Your task to perform on an android device: Show me productivity apps on the Play Store Image 0: 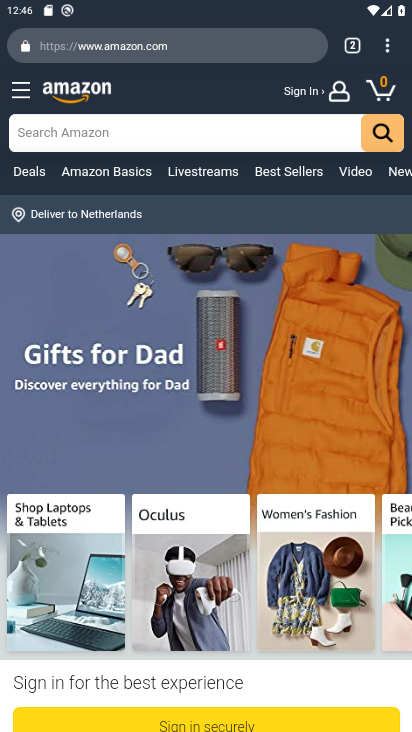
Step 0: press home button
Your task to perform on an android device: Show me productivity apps on the Play Store Image 1: 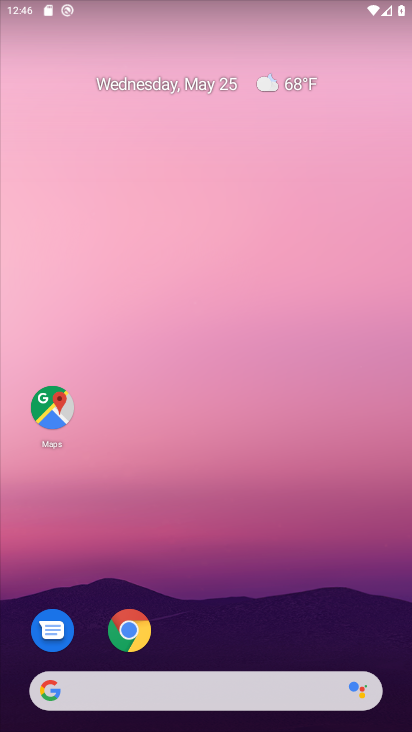
Step 1: drag from (219, 613) to (256, 135)
Your task to perform on an android device: Show me productivity apps on the Play Store Image 2: 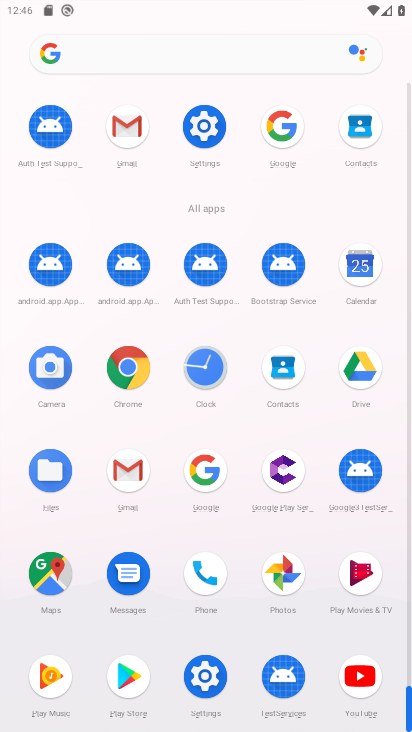
Step 2: click (129, 666)
Your task to perform on an android device: Show me productivity apps on the Play Store Image 3: 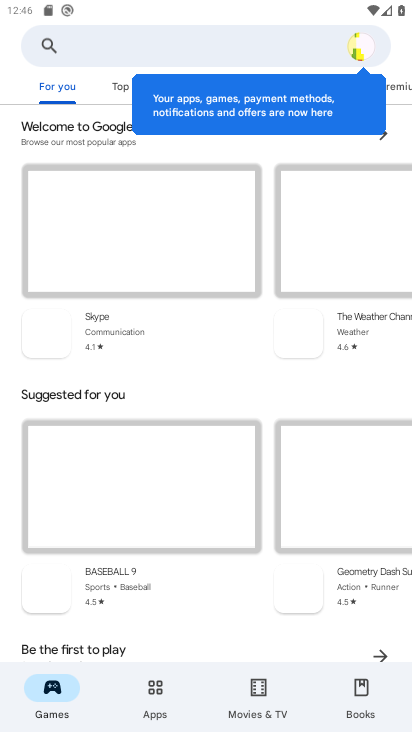
Step 3: click (149, 692)
Your task to perform on an android device: Show me productivity apps on the Play Store Image 4: 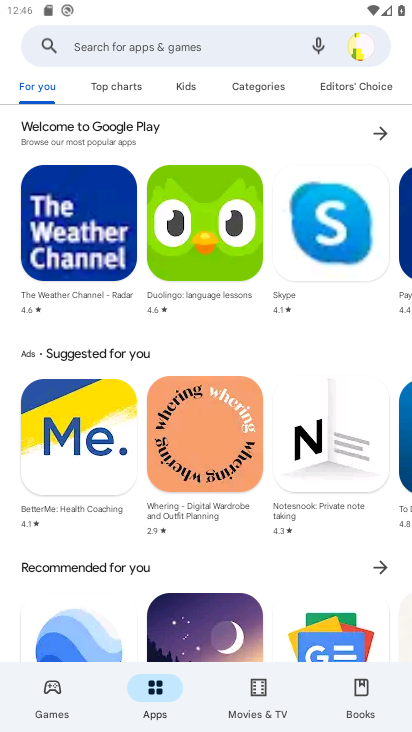
Step 4: click (267, 87)
Your task to perform on an android device: Show me productivity apps on the Play Store Image 5: 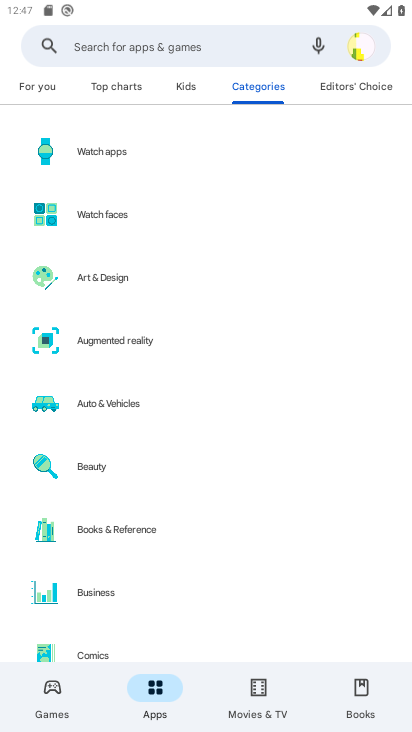
Step 5: drag from (208, 601) to (223, 170)
Your task to perform on an android device: Show me productivity apps on the Play Store Image 6: 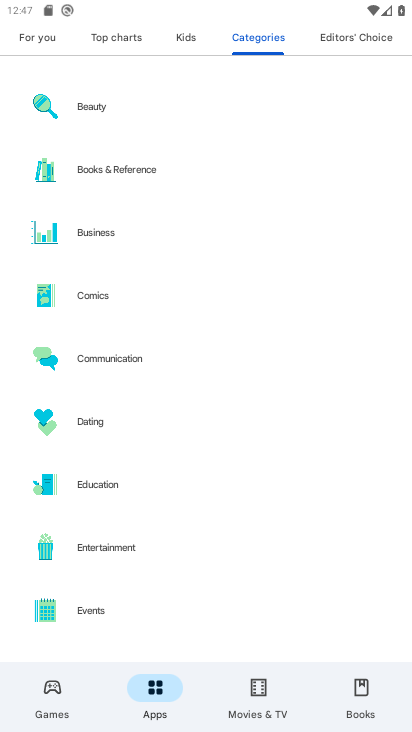
Step 6: drag from (175, 559) to (200, 114)
Your task to perform on an android device: Show me productivity apps on the Play Store Image 7: 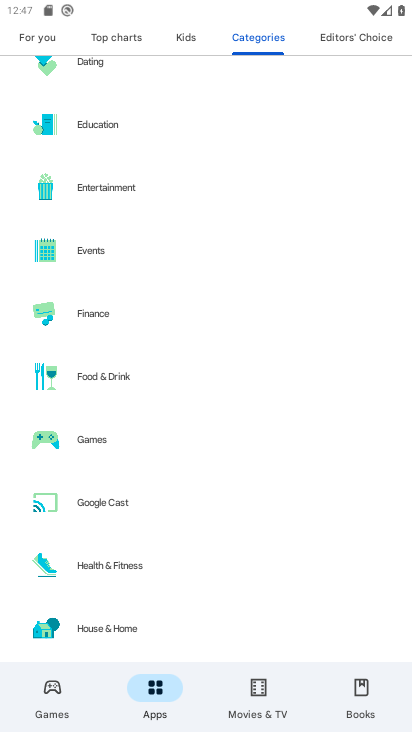
Step 7: drag from (197, 536) to (217, 238)
Your task to perform on an android device: Show me productivity apps on the Play Store Image 8: 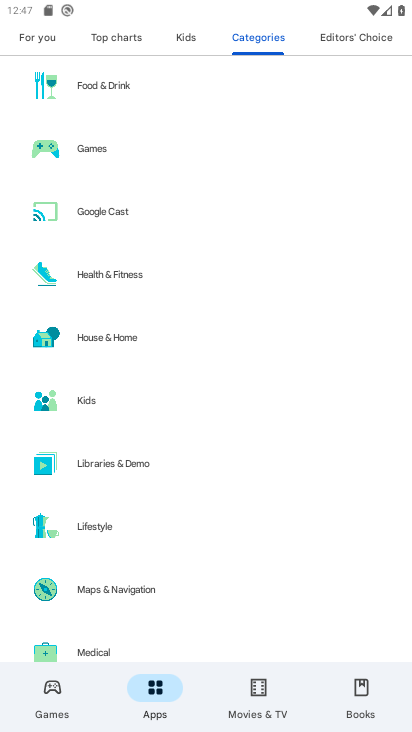
Step 8: drag from (185, 602) to (211, 176)
Your task to perform on an android device: Show me productivity apps on the Play Store Image 9: 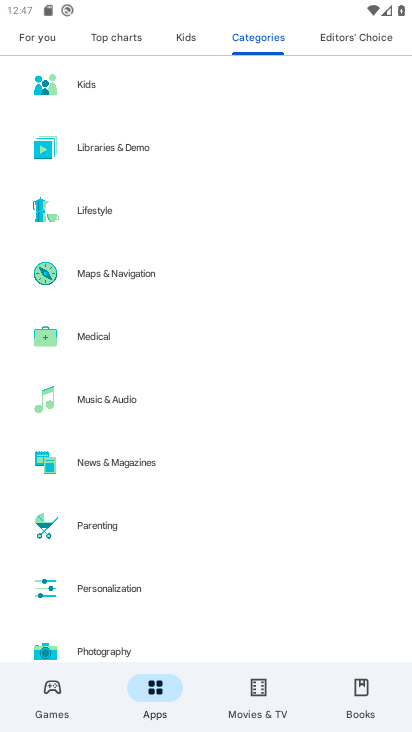
Step 9: drag from (208, 557) to (218, 267)
Your task to perform on an android device: Show me productivity apps on the Play Store Image 10: 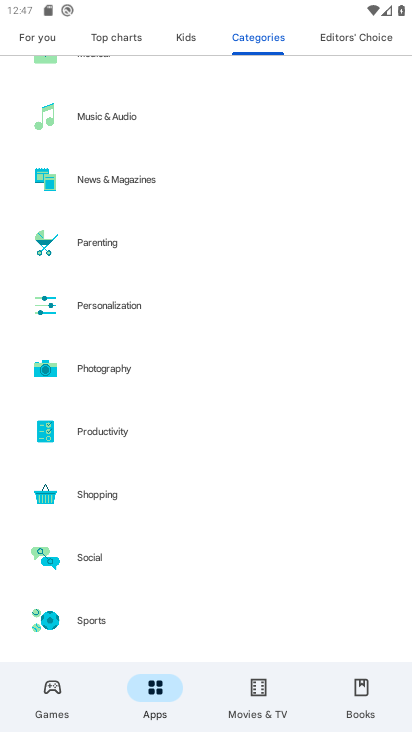
Step 10: click (102, 440)
Your task to perform on an android device: Show me productivity apps on the Play Store Image 11: 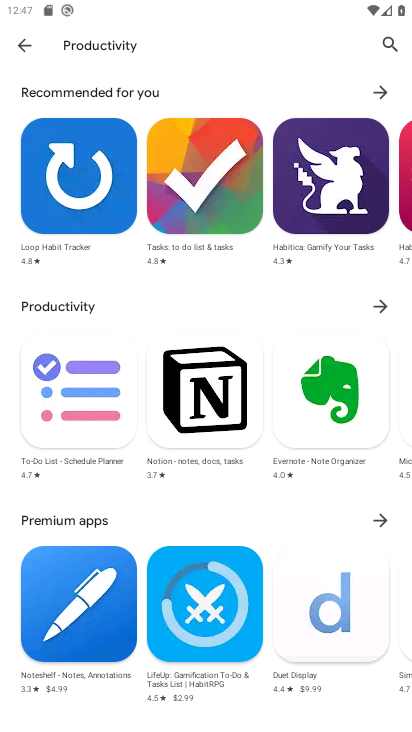
Step 11: task complete